Your task to perform on an android device: Turn on the flashlight Image 0: 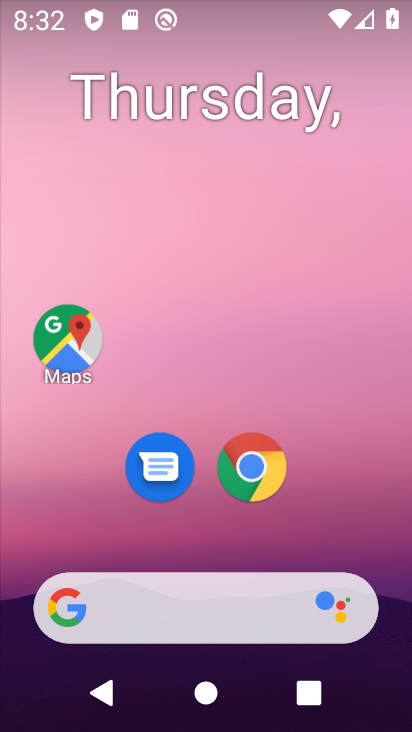
Step 0: drag from (351, 520) to (350, 70)
Your task to perform on an android device: Turn on the flashlight Image 1: 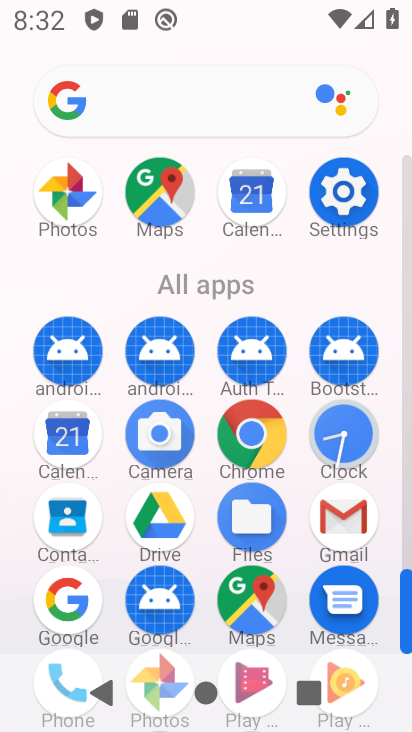
Step 1: click (335, 192)
Your task to perform on an android device: Turn on the flashlight Image 2: 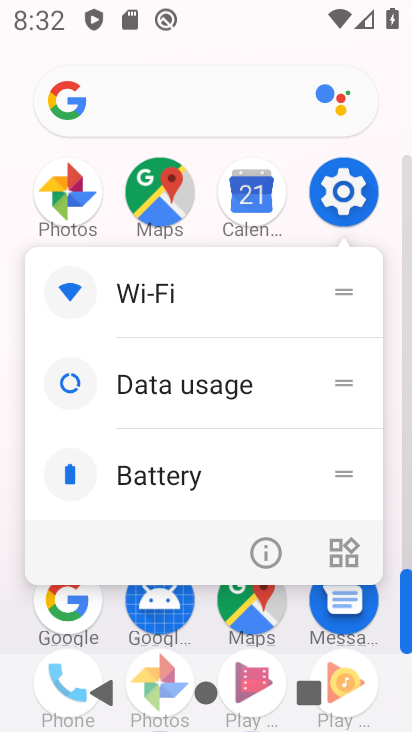
Step 2: click (337, 215)
Your task to perform on an android device: Turn on the flashlight Image 3: 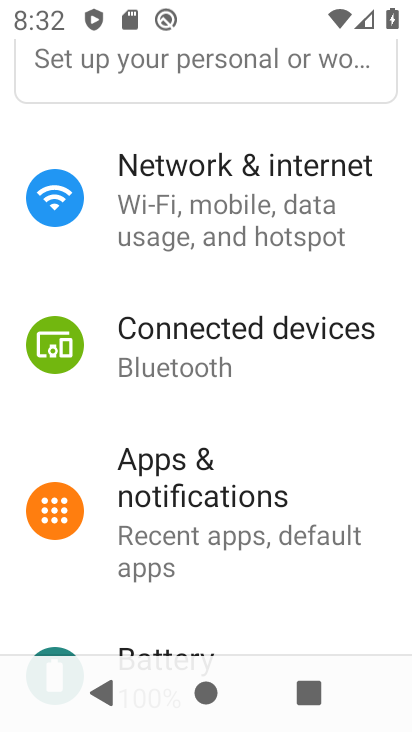
Step 3: task complete